Your task to perform on an android device: turn on sleep mode Image 0: 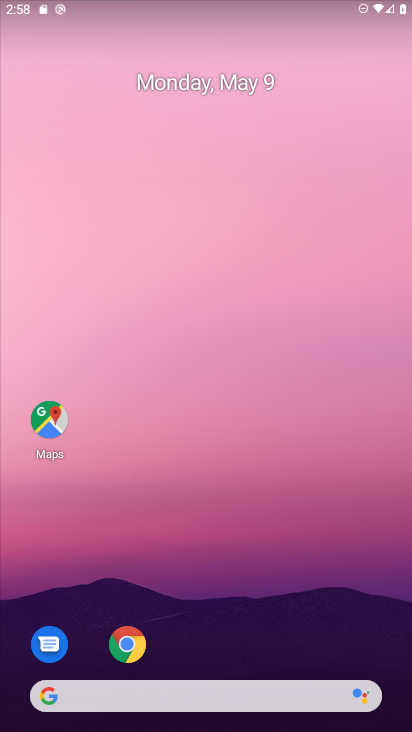
Step 0: drag from (269, 476) to (256, 45)
Your task to perform on an android device: turn on sleep mode Image 1: 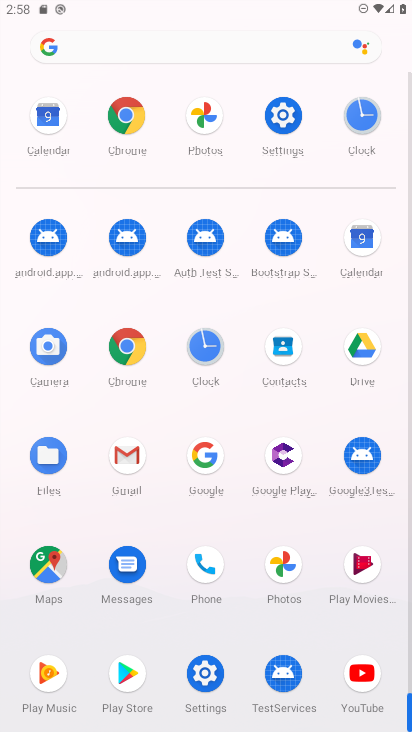
Step 1: click (285, 147)
Your task to perform on an android device: turn on sleep mode Image 2: 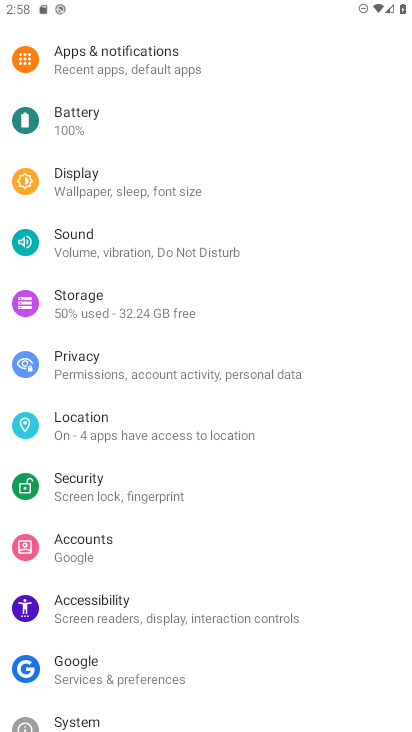
Step 2: drag from (265, 476) to (260, 642)
Your task to perform on an android device: turn on sleep mode Image 3: 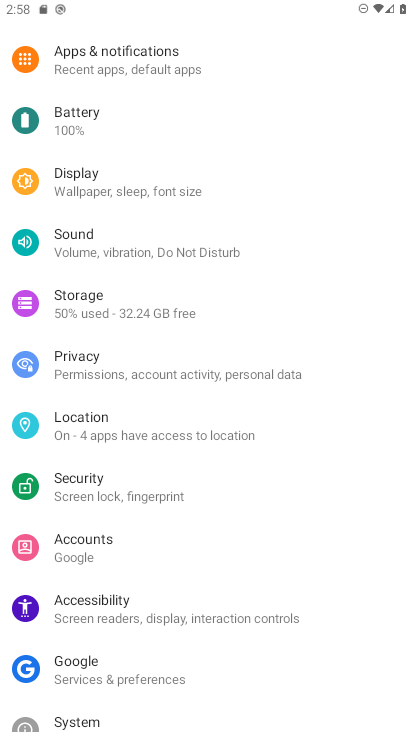
Step 3: drag from (278, 581) to (273, 635)
Your task to perform on an android device: turn on sleep mode Image 4: 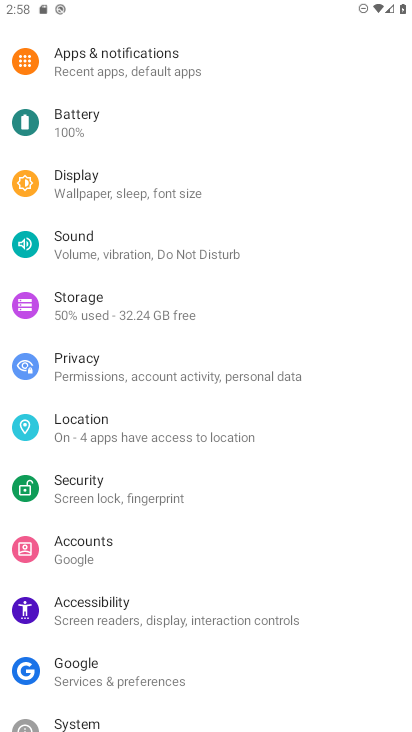
Step 4: click (153, 70)
Your task to perform on an android device: turn on sleep mode Image 5: 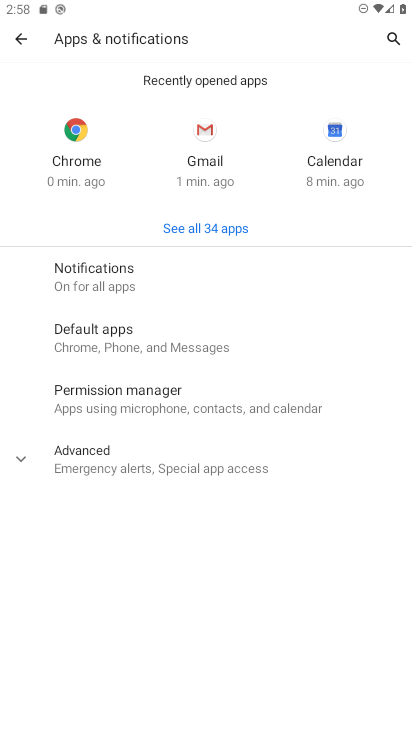
Step 5: task complete